Your task to perform on an android device: change the clock display to digital Image 0: 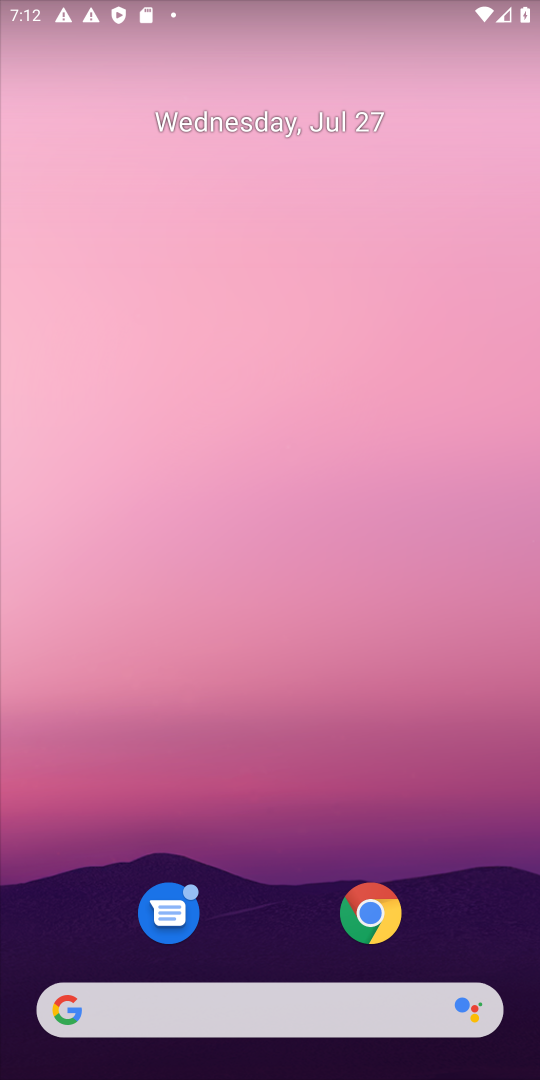
Step 0: drag from (111, 860) to (180, 256)
Your task to perform on an android device: change the clock display to digital Image 1: 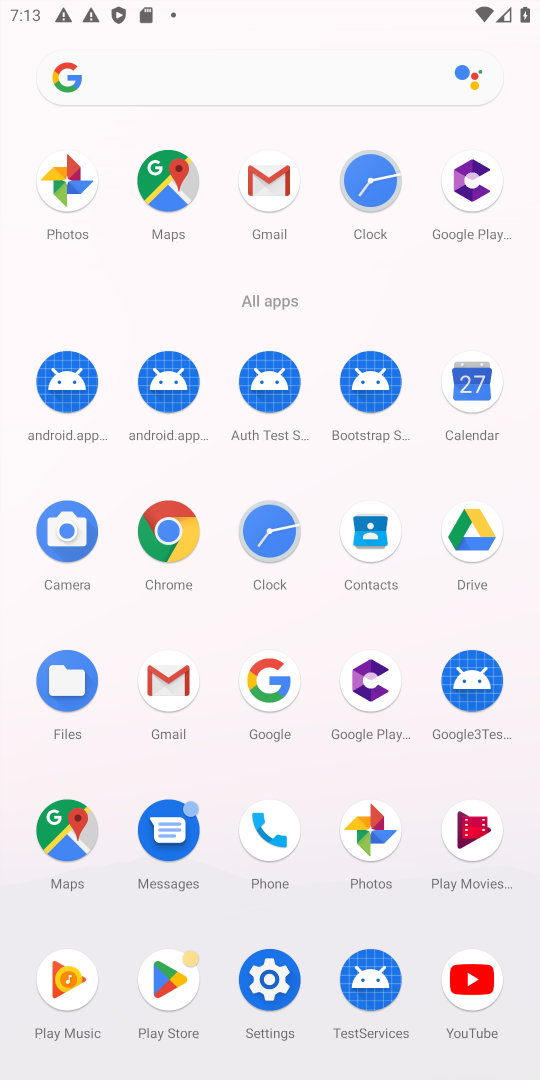
Step 1: click (266, 538)
Your task to perform on an android device: change the clock display to digital Image 2: 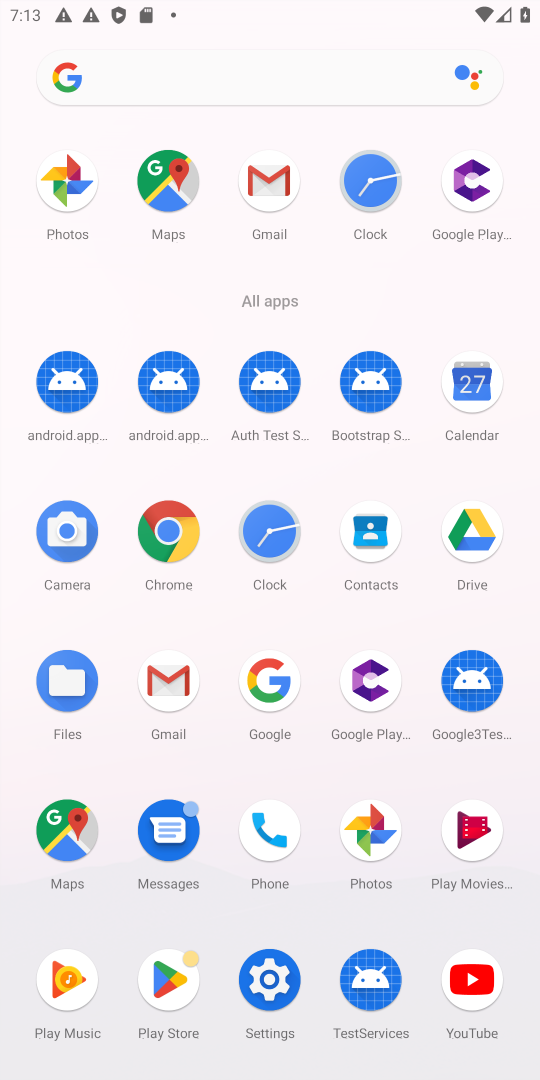
Step 2: click (266, 538)
Your task to perform on an android device: change the clock display to digital Image 3: 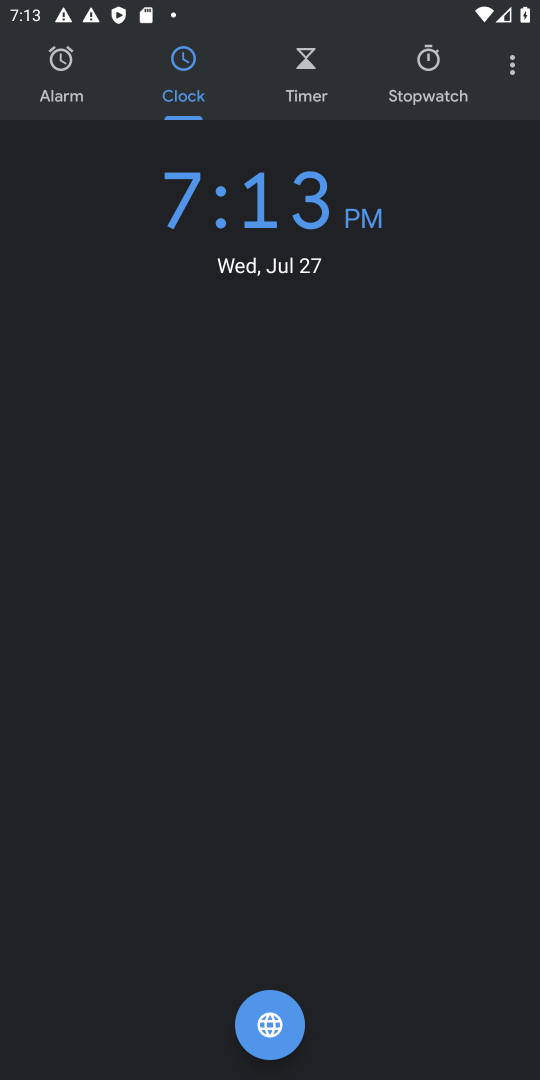
Step 3: click (515, 70)
Your task to perform on an android device: change the clock display to digital Image 4: 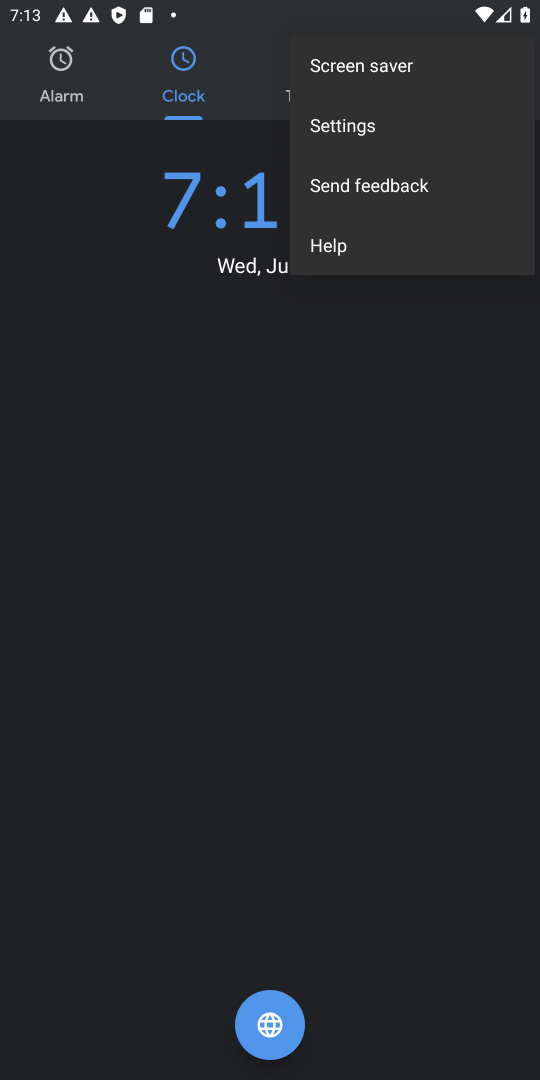
Step 4: click (338, 120)
Your task to perform on an android device: change the clock display to digital Image 5: 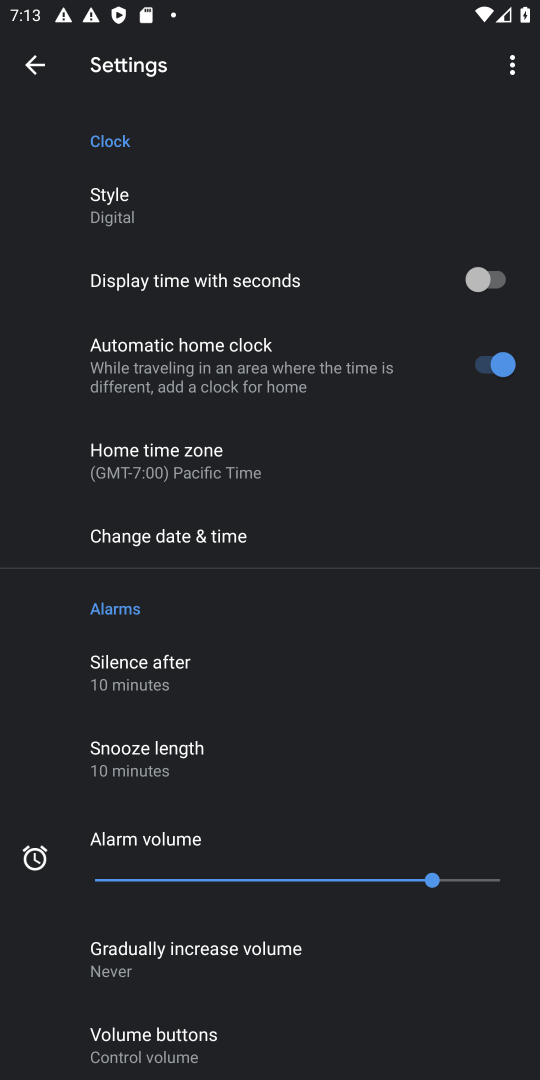
Step 5: click (191, 181)
Your task to perform on an android device: change the clock display to digital Image 6: 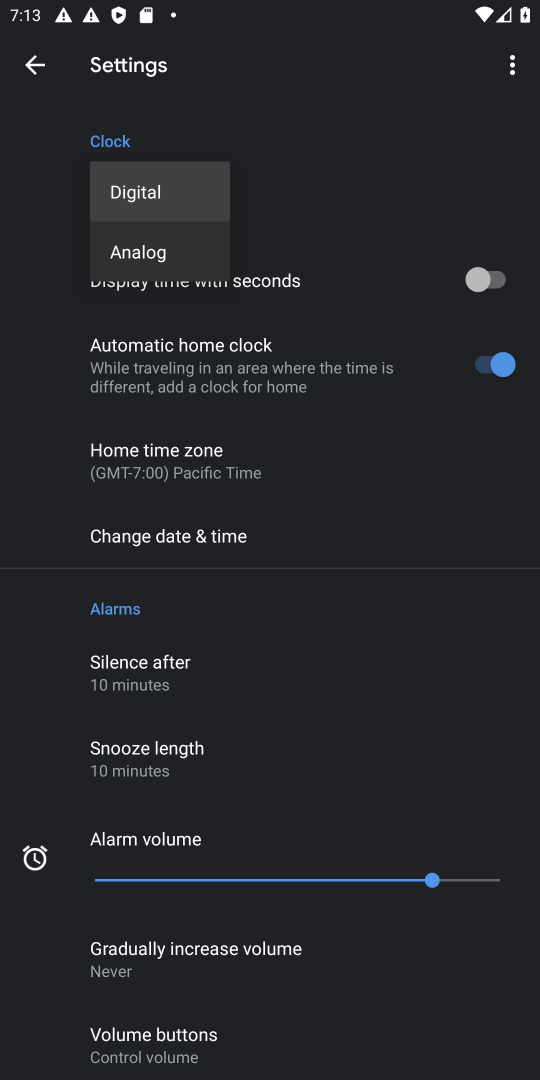
Step 6: task complete